Your task to perform on an android device: Open Google Maps and go to "Timeline" Image 0: 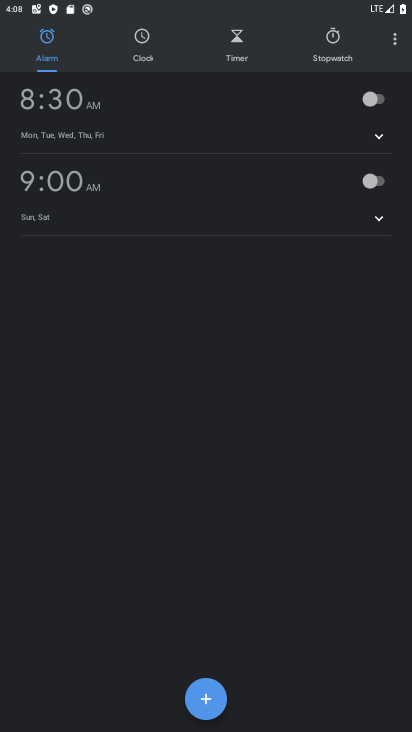
Step 0: press home button
Your task to perform on an android device: Open Google Maps and go to "Timeline" Image 1: 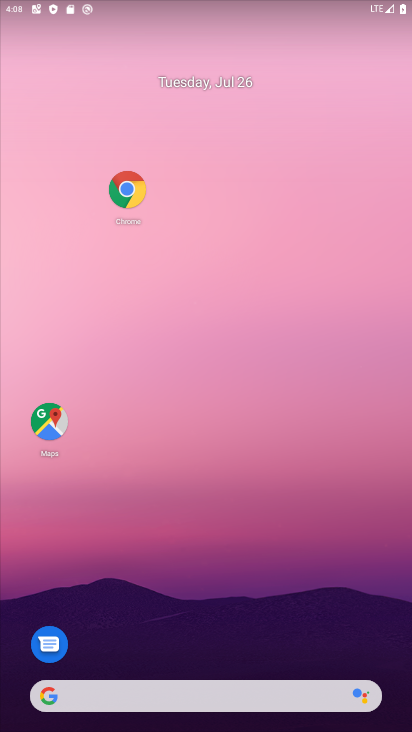
Step 1: click (54, 413)
Your task to perform on an android device: Open Google Maps and go to "Timeline" Image 2: 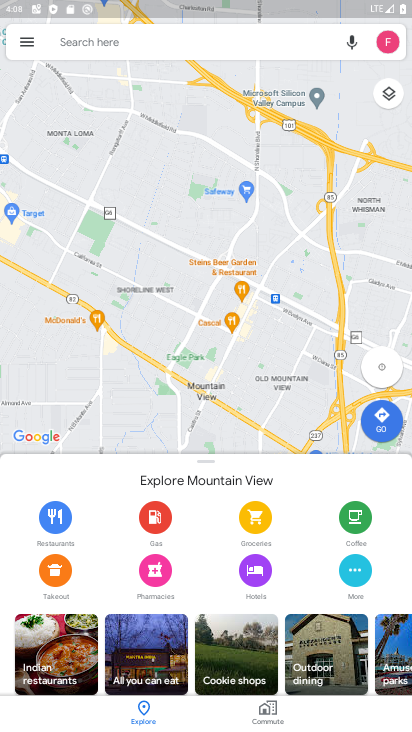
Step 2: click (27, 43)
Your task to perform on an android device: Open Google Maps and go to "Timeline" Image 3: 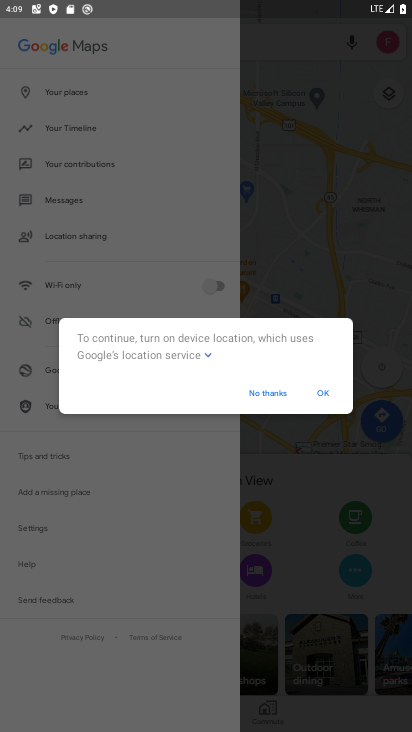
Step 3: click (330, 389)
Your task to perform on an android device: Open Google Maps and go to "Timeline" Image 4: 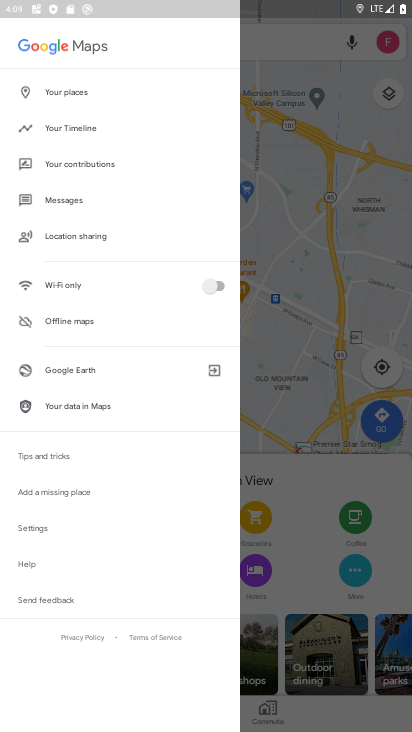
Step 4: click (83, 123)
Your task to perform on an android device: Open Google Maps and go to "Timeline" Image 5: 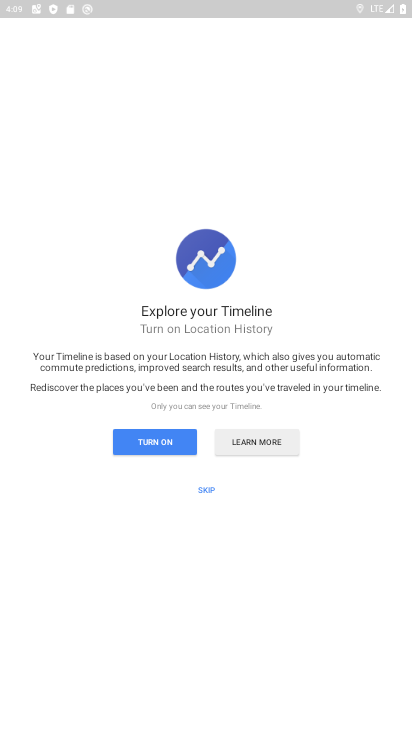
Step 5: click (156, 441)
Your task to perform on an android device: Open Google Maps and go to "Timeline" Image 6: 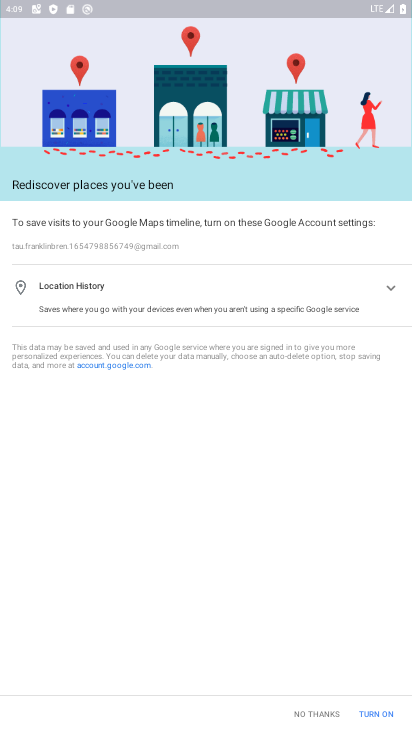
Step 6: click (365, 710)
Your task to perform on an android device: Open Google Maps and go to "Timeline" Image 7: 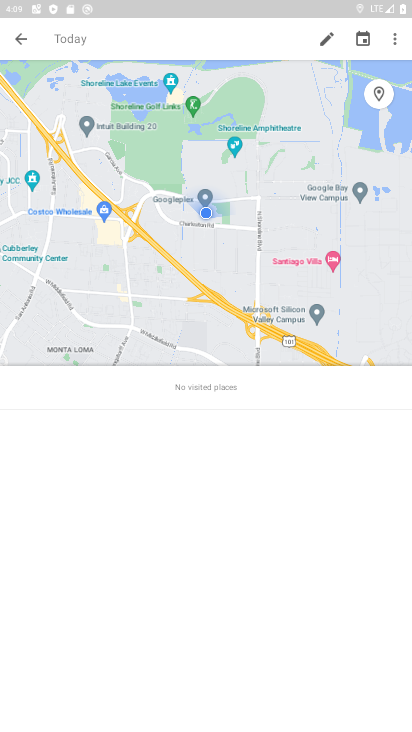
Step 7: task complete